Your task to perform on an android device: See recent photos Image 0: 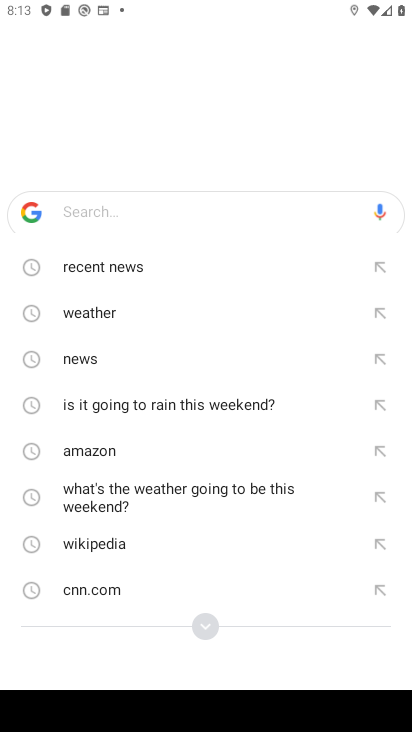
Step 0: press back button
Your task to perform on an android device: See recent photos Image 1: 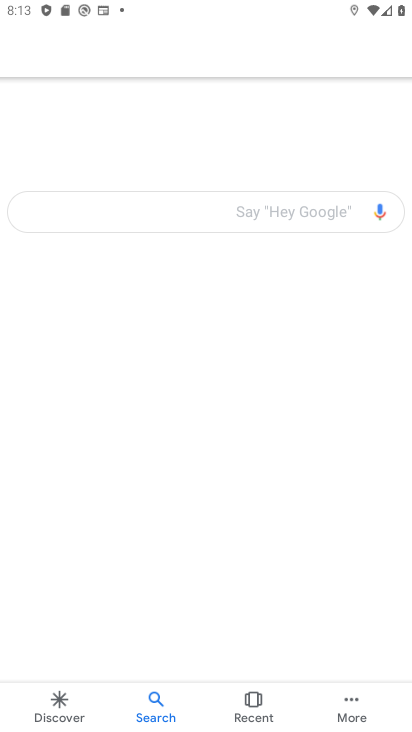
Step 1: press home button
Your task to perform on an android device: See recent photos Image 2: 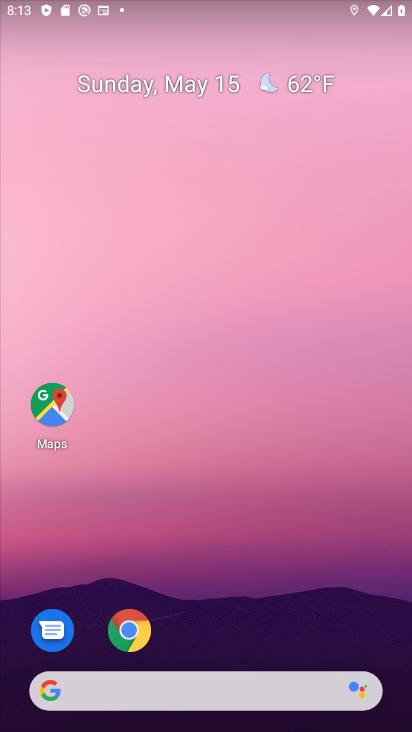
Step 2: drag from (215, 563) to (297, 5)
Your task to perform on an android device: See recent photos Image 3: 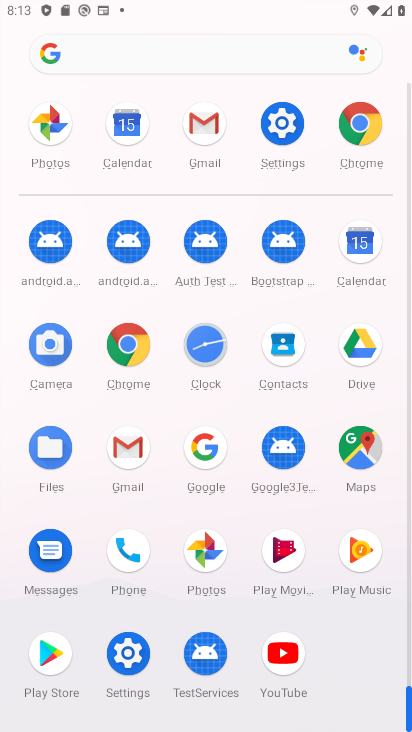
Step 3: click (209, 558)
Your task to perform on an android device: See recent photos Image 4: 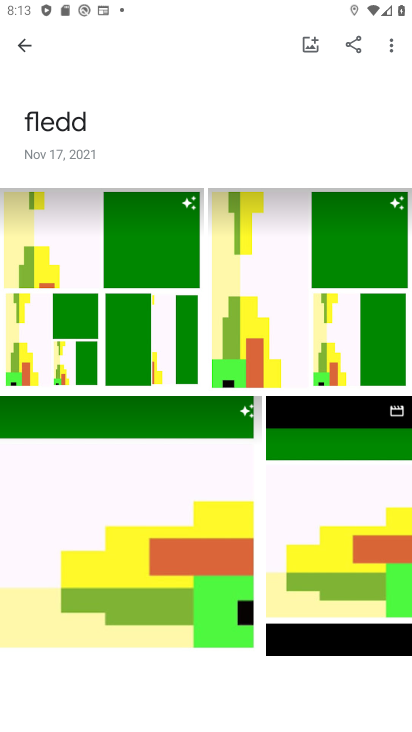
Step 4: click (21, 49)
Your task to perform on an android device: See recent photos Image 5: 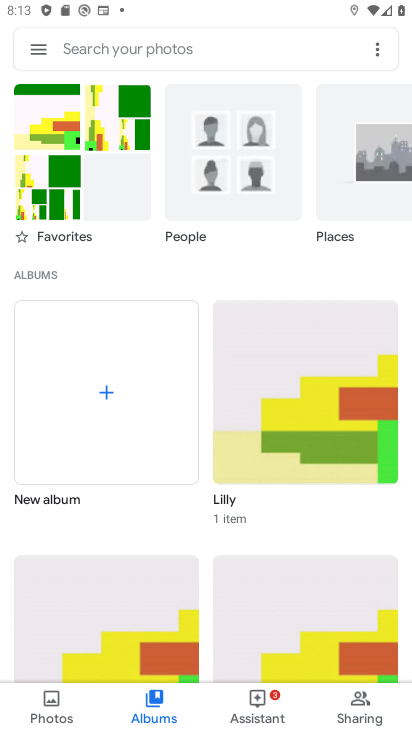
Step 5: click (50, 700)
Your task to perform on an android device: See recent photos Image 6: 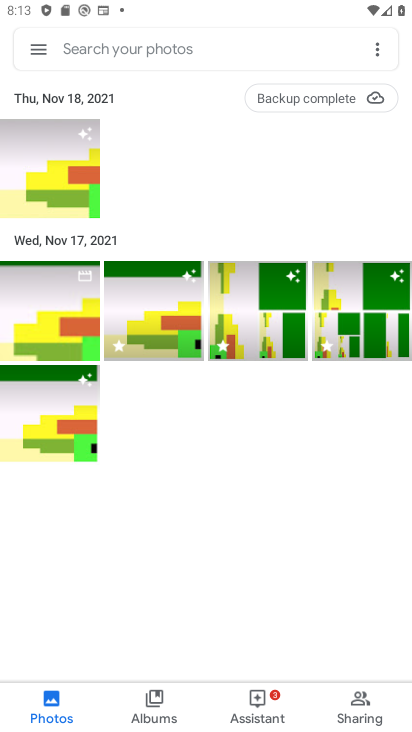
Step 6: drag from (195, 429) to (179, 578)
Your task to perform on an android device: See recent photos Image 7: 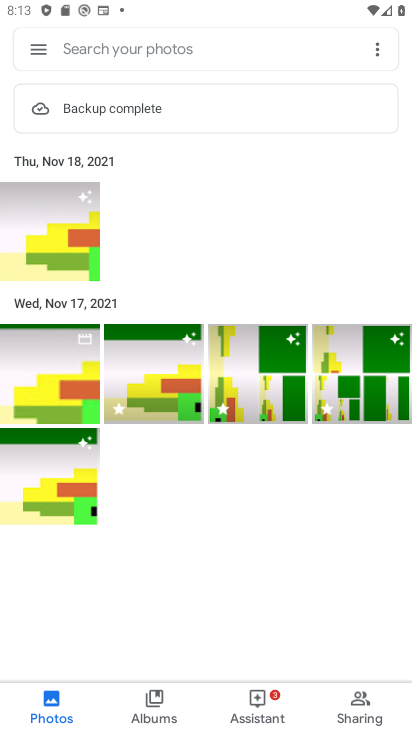
Step 7: click (65, 382)
Your task to perform on an android device: See recent photos Image 8: 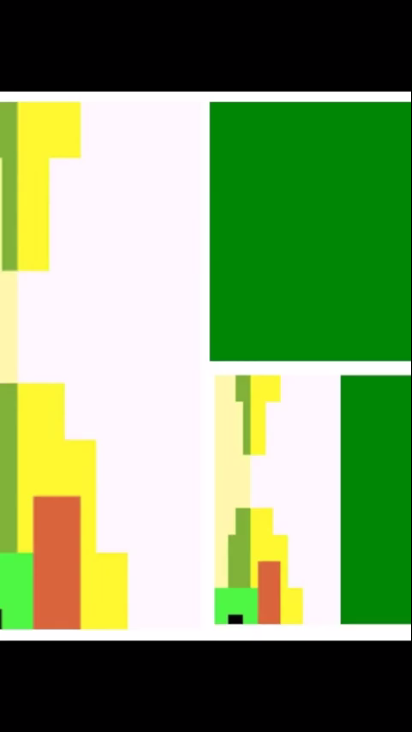
Step 8: task complete